Your task to perform on an android device: see creations saved in the google photos Image 0: 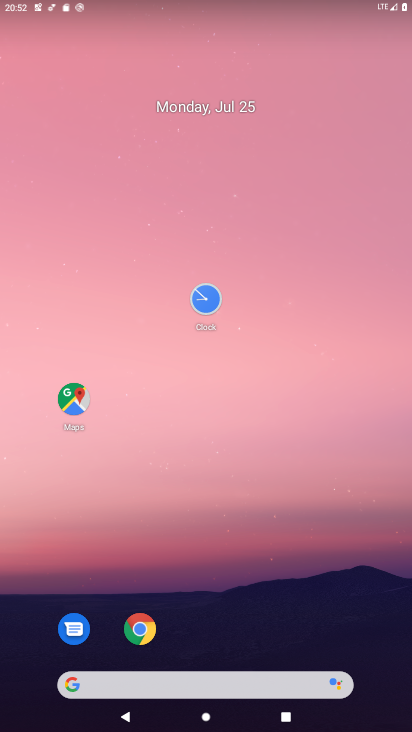
Step 0: drag from (222, 632) to (261, 5)
Your task to perform on an android device: see creations saved in the google photos Image 1: 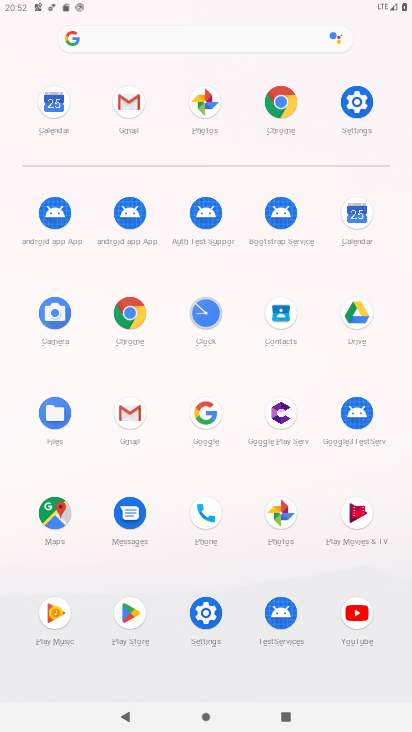
Step 1: click (275, 536)
Your task to perform on an android device: see creations saved in the google photos Image 2: 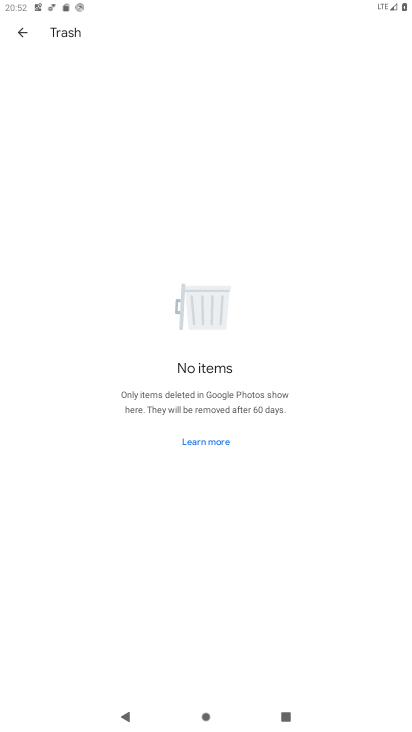
Step 2: click (25, 31)
Your task to perform on an android device: see creations saved in the google photos Image 3: 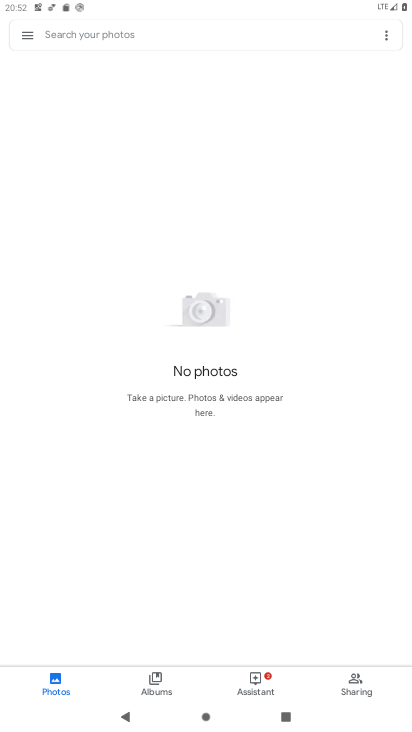
Step 3: click (151, 34)
Your task to perform on an android device: see creations saved in the google photos Image 4: 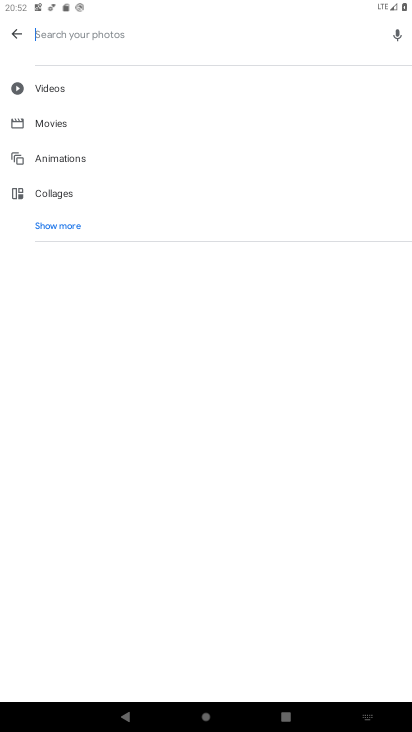
Step 4: type "creations"
Your task to perform on an android device: see creations saved in the google photos Image 5: 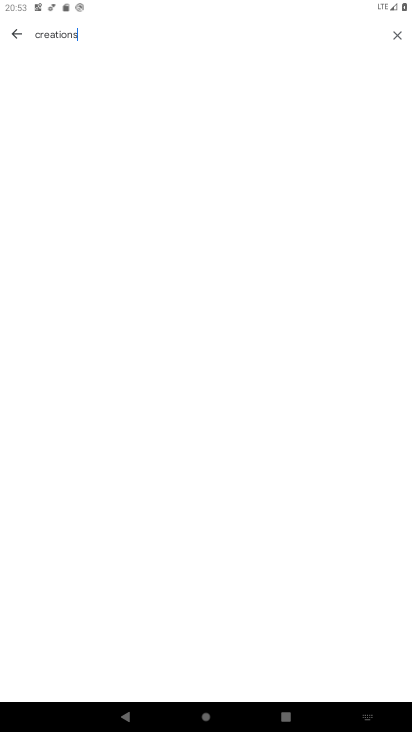
Step 5: click (247, 143)
Your task to perform on an android device: see creations saved in the google photos Image 6: 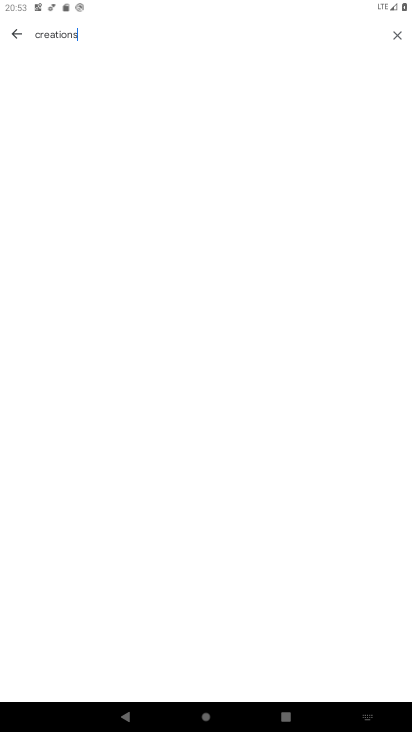
Step 6: task complete